Your task to perform on an android device: change notifications settings Image 0: 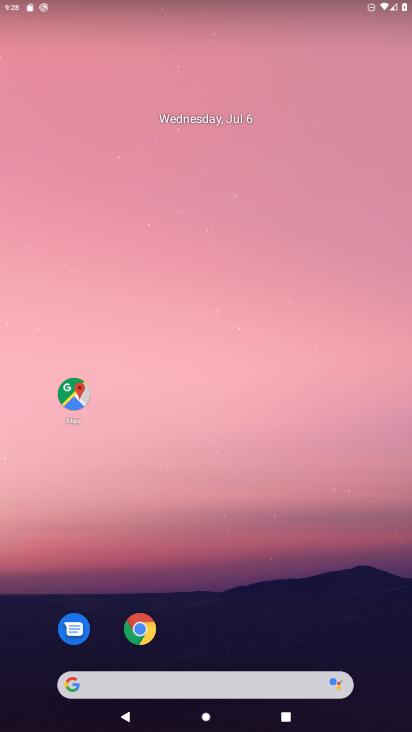
Step 0: drag from (317, 677) to (344, 46)
Your task to perform on an android device: change notifications settings Image 1: 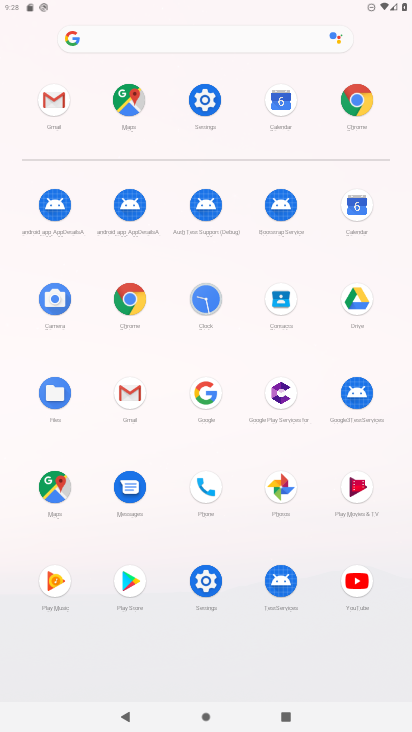
Step 1: click (211, 92)
Your task to perform on an android device: change notifications settings Image 2: 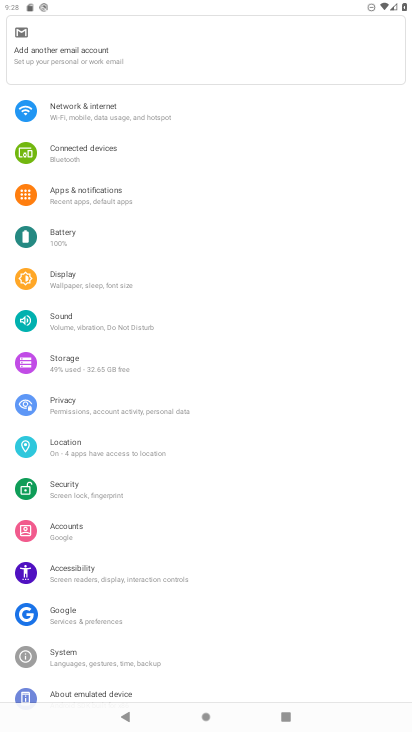
Step 2: click (102, 195)
Your task to perform on an android device: change notifications settings Image 3: 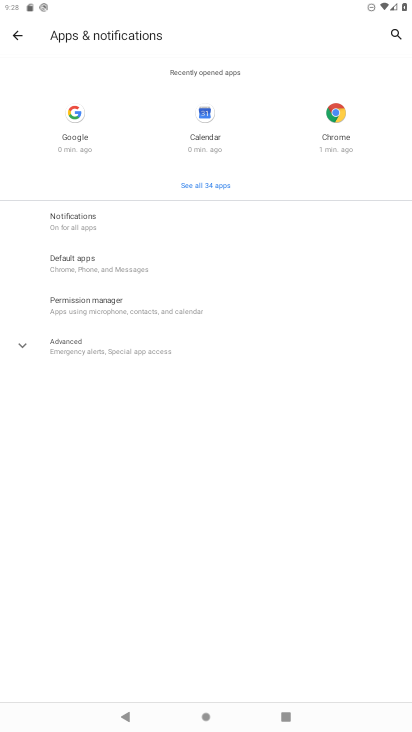
Step 3: click (94, 224)
Your task to perform on an android device: change notifications settings Image 4: 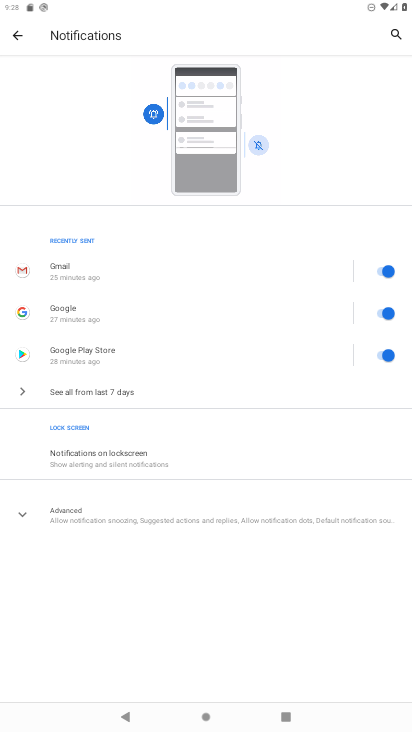
Step 4: click (379, 269)
Your task to perform on an android device: change notifications settings Image 5: 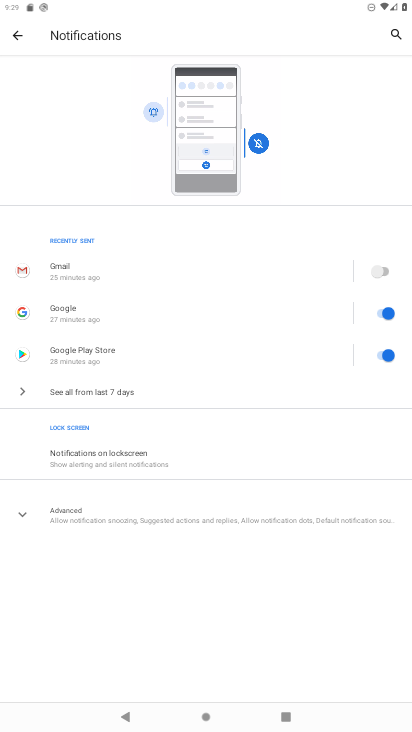
Step 5: task complete